Your task to perform on an android device: turn off translation in the chrome app Image 0: 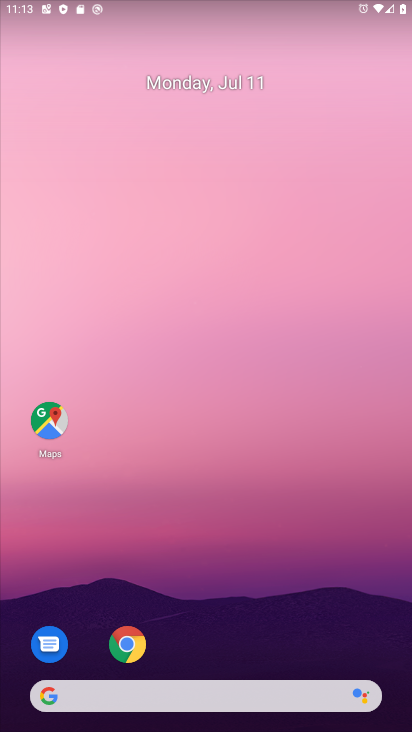
Step 0: press home button
Your task to perform on an android device: turn off translation in the chrome app Image 1: 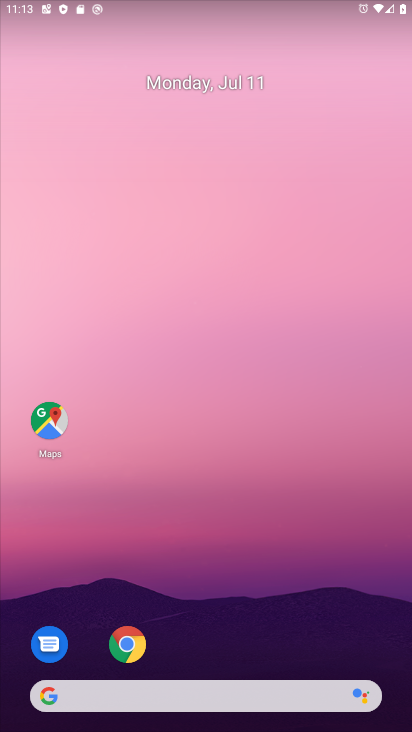
Step 1: click (121, 638)
Your task to perform on an android device: turn off translation in the chrome app Image 2: 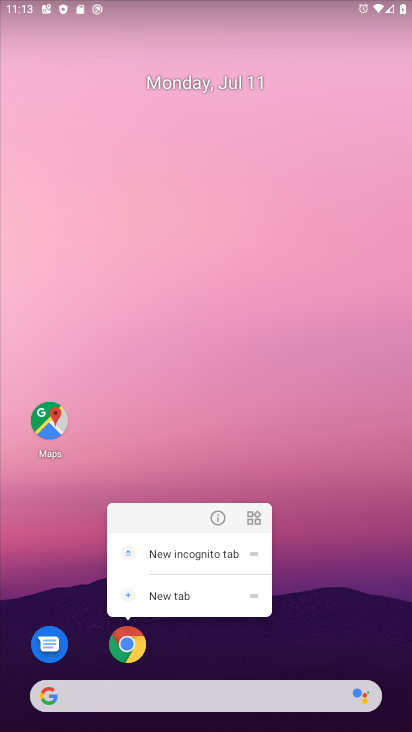
Step 2: click (119, 636)
Your task to perform on an android device: turn off translation in the chrome app Image 3: 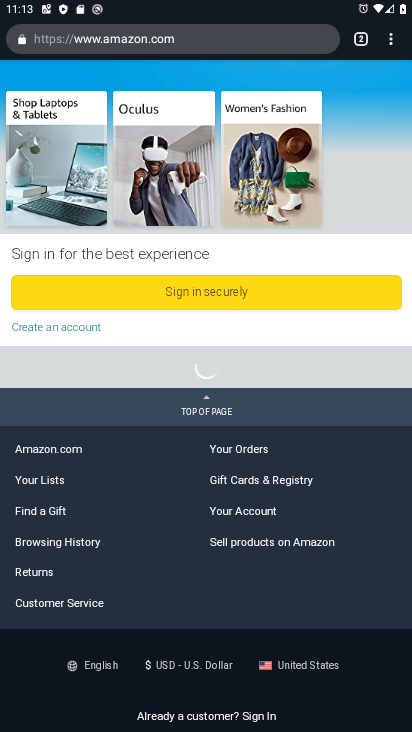
Step 3: click (390, 42)
Your task to perform on an android device: turn off translation in the chrome app Image 4: 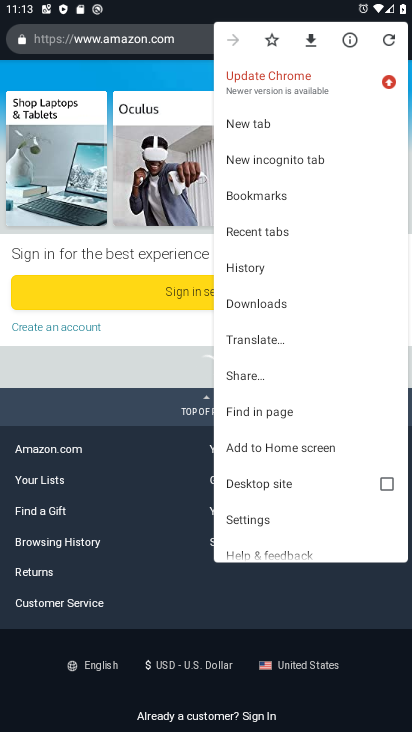
Step 4: click (288, 518)
Your task to perform on an android device: turn off translation in the chrome app Image 5: 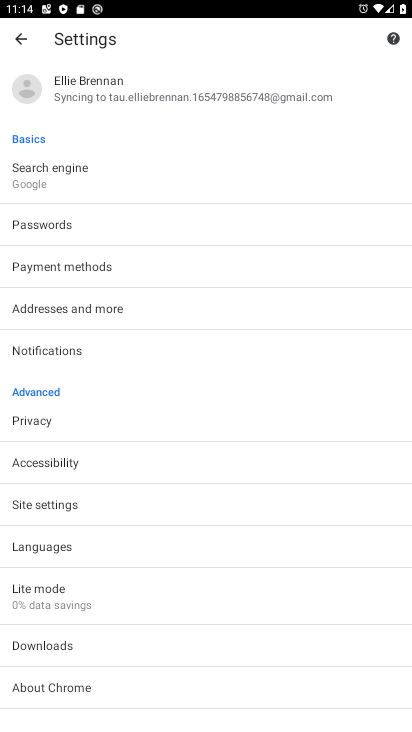
Step 5: click (88, 536)
Your task to perform on an android device: turn off translation in the chrome app Image 6: 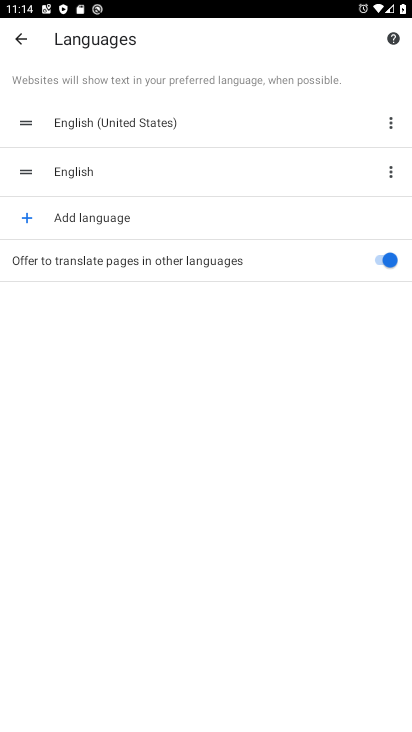
Step 6: click (381, 258)
Your task to perform on an android device: turn off translation in the chrome app Image 7: 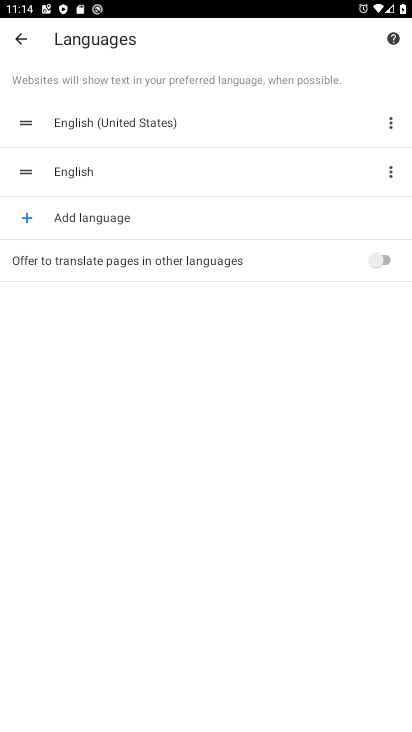
Step 7: task complete